Your task to perform on an android device: Open settings Image 0: 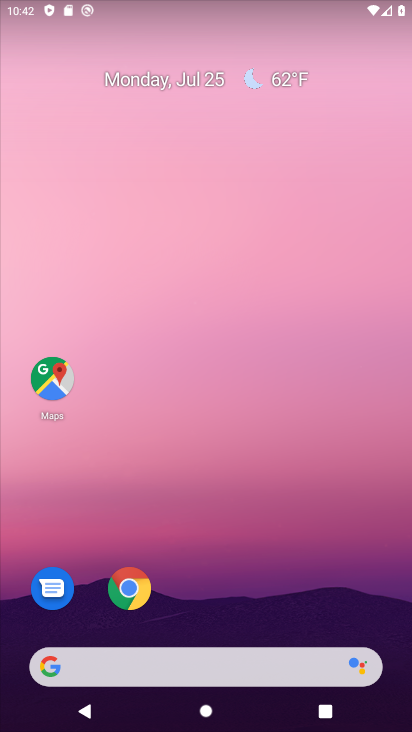
Step 0: drag from (14, 668) to (241, 81)
Your task to perform on an android device: Open settings Image 1: 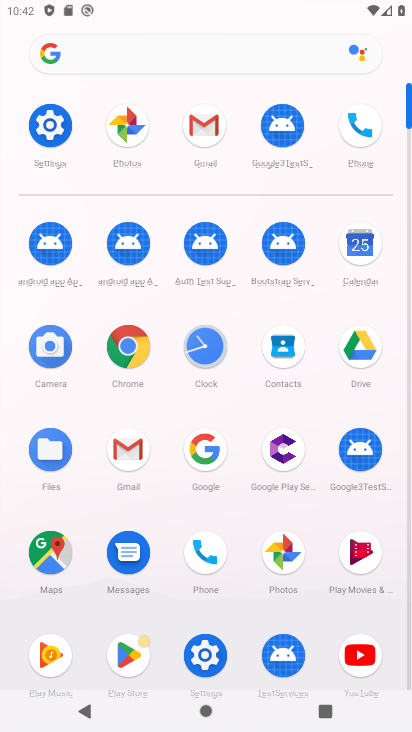
Step 1: click (51, 139)
Your task to perform on an android device: Open settings Image 2: 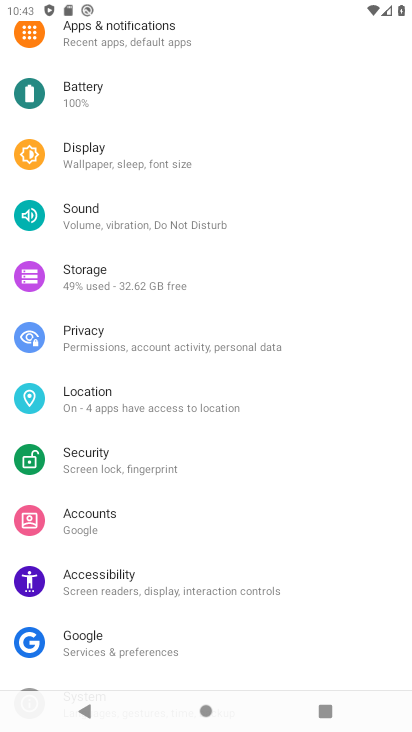
Step 2: task complete